Your task to perform on an android device: Open eBay Image 0: 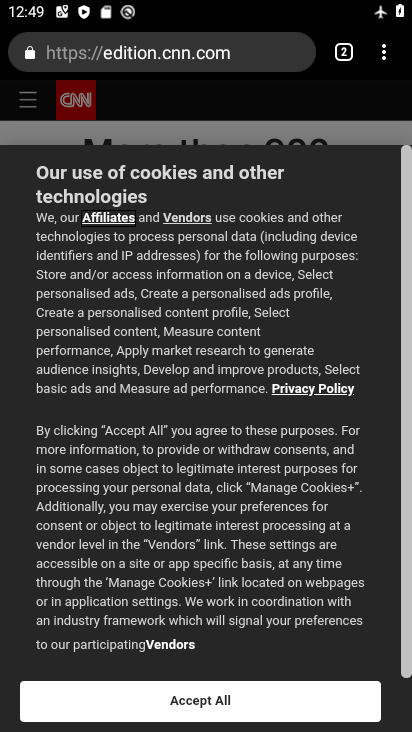
Step 0: press home button
Your task to perform on an android device: Open eBay Image 1: 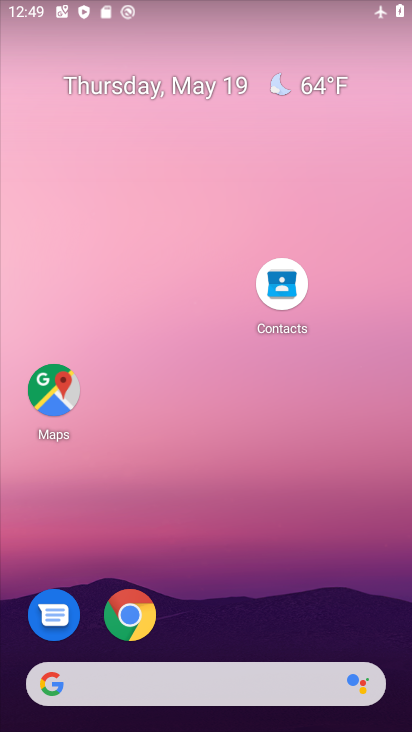
Step 1: drag from (213, 645) to (246, 133)
Your task to perform on an android device: Open eBay Image 2: 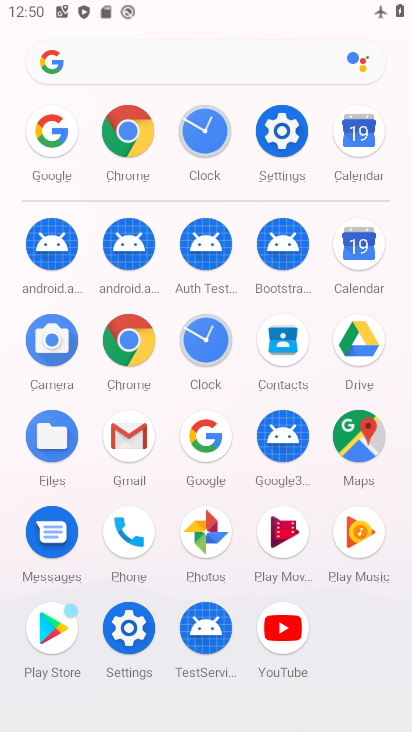
Step 2: click (143, 355)
Your task to perform on an android device: Open eBay Image 3: 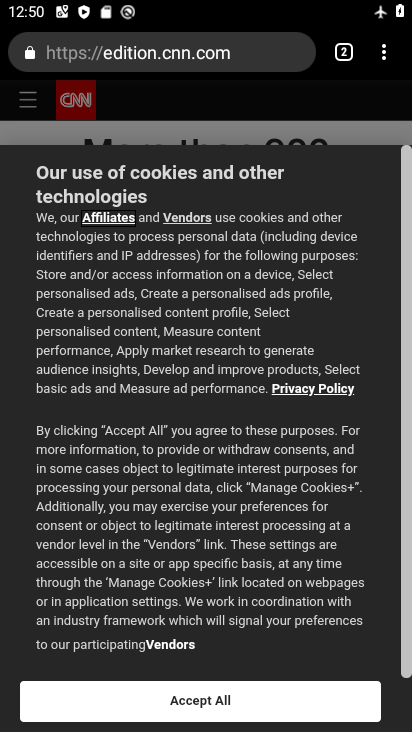
Step 3: click (229, 38)
Your task to perform on an android device: Open eBay Image 4: 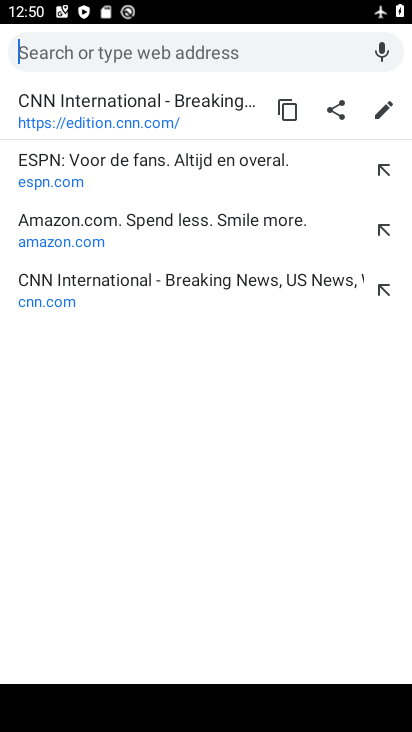
Step 4: type "ebay"
Your task to perform on an android device: Open eBay Image 5: 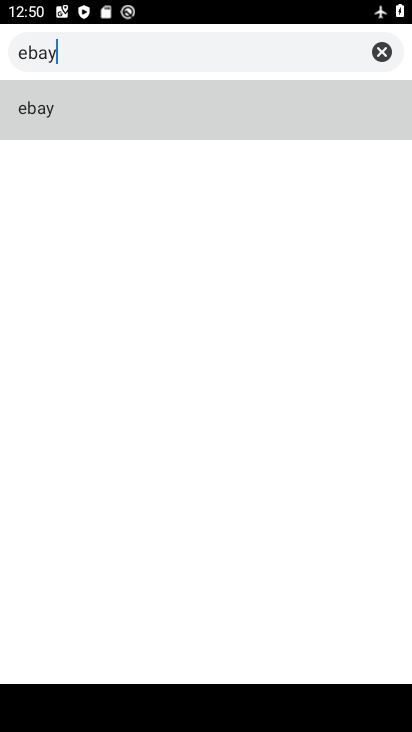
Step 5: task complete